Your task to perform on an android device: move an email to a new category in the gmail app Image 0: 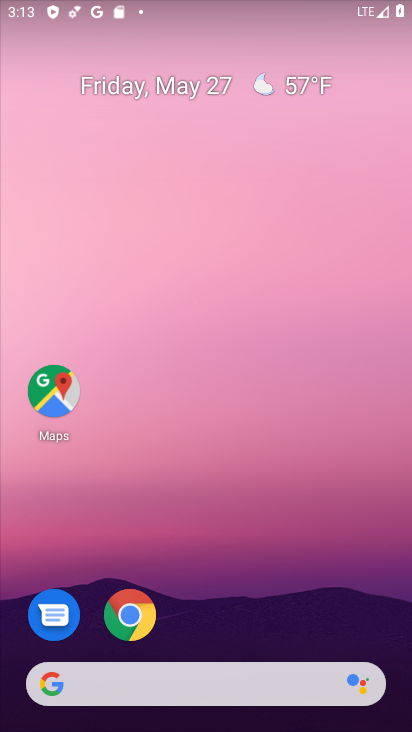
Step 0: drag from (215, 632) to (249, 2)
Your task to perform on an android device: move an email to a new category in the gmail app Image 1: 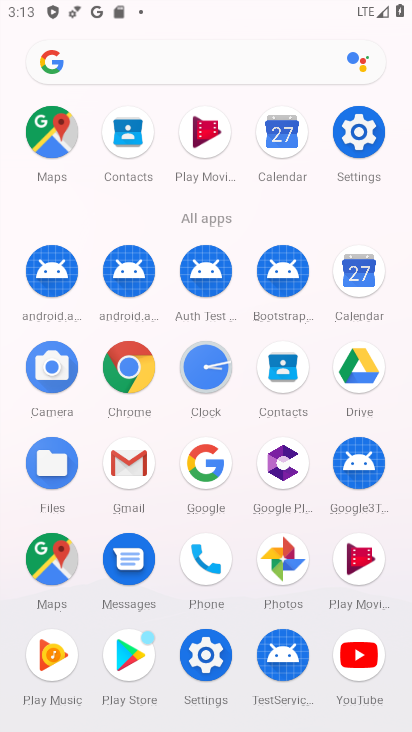
Step 1: click (135, 469)
Your task to perform on an android device: move an email to a new category in the gmail app Image 2: 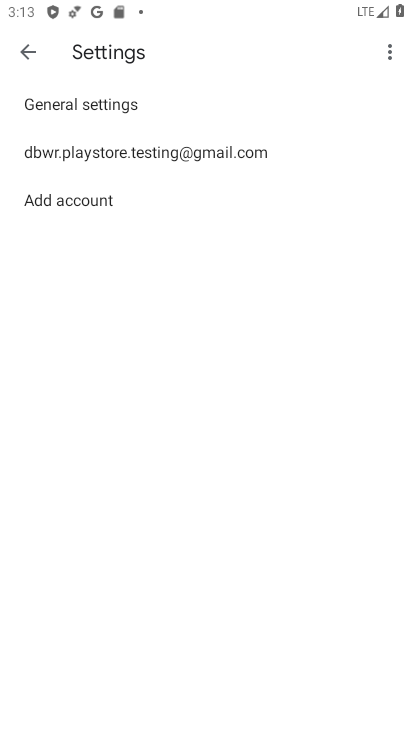
Step 2: click (179, 156)
Your task to perform on an android device: move an email to a new category in the gmail app Image 3: 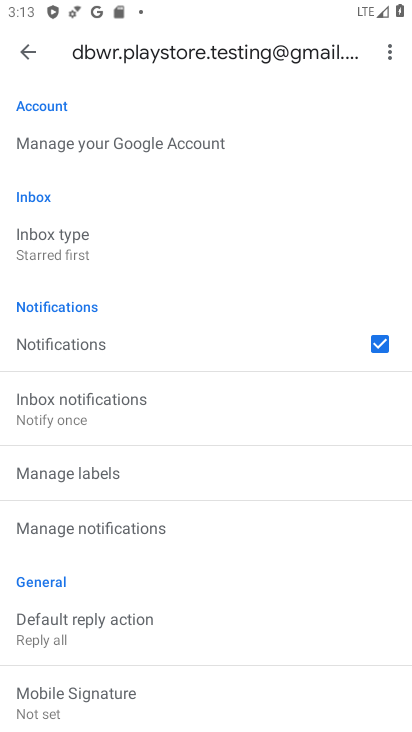
Step 3: click (14, 55)
Your task to perform on an android device: move an email to a new category in the gmail app Image 4: 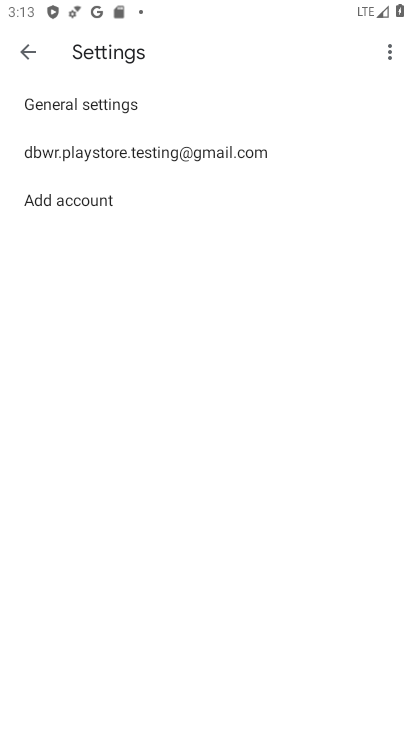
Step 4: click (26, 65)
Your task to perform on an android device: move an email to a new category in the gmail app Image 5: 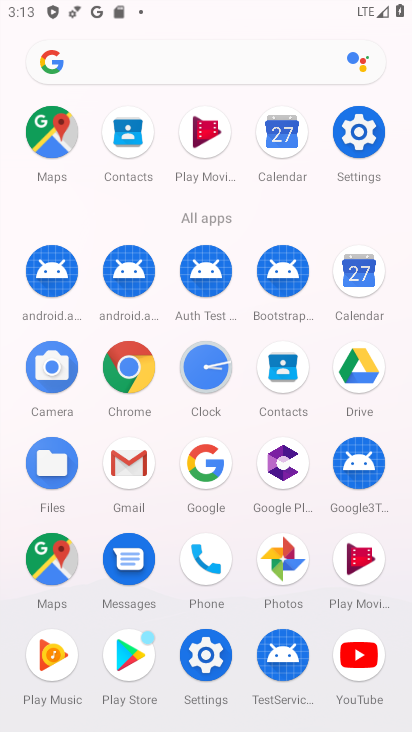
Step 5: click (134, 476)
Your task to perform on an android device: move an email to a new category in the gmail app Image 6: 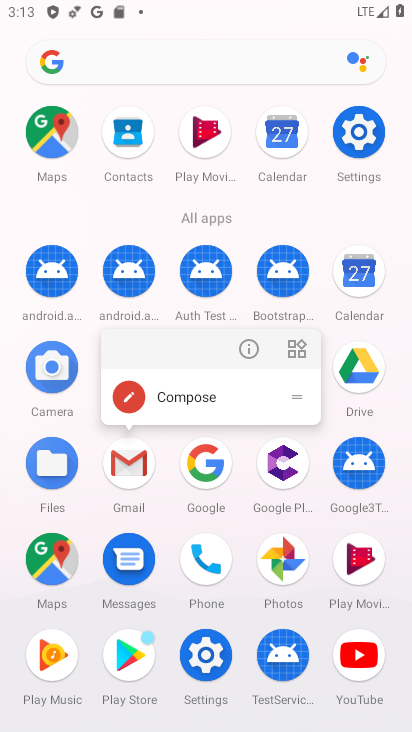
Step 6: click (107, 466)
Your task to perform on an android device: move an email to a new category in the gmail app Image 7: 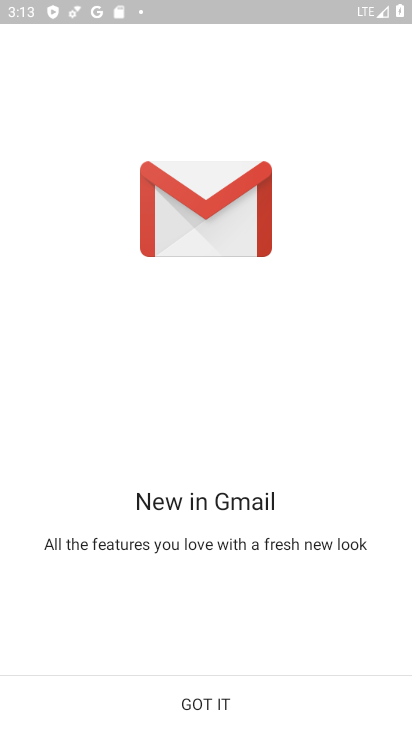
Step 7: click (118, 473)
Your task to perform on an android device: move an email to a new category in the gmail app Image 8: 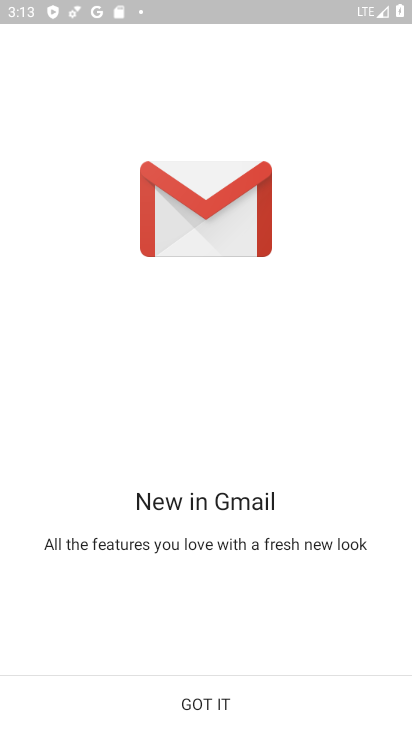
Step 8: click (213, 710)
Your task to perform on an android device: move an email to a new category in the gmail app Image 9: 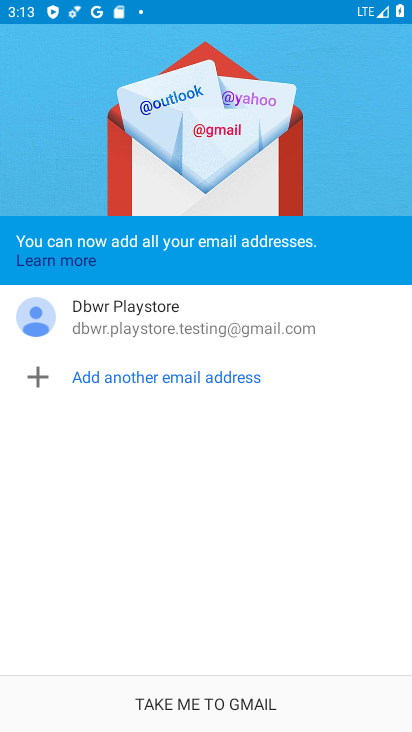
Step 9: click (213, 694)
Your task to perform on an android device: move an email to a new category in the gmail app Image 10: 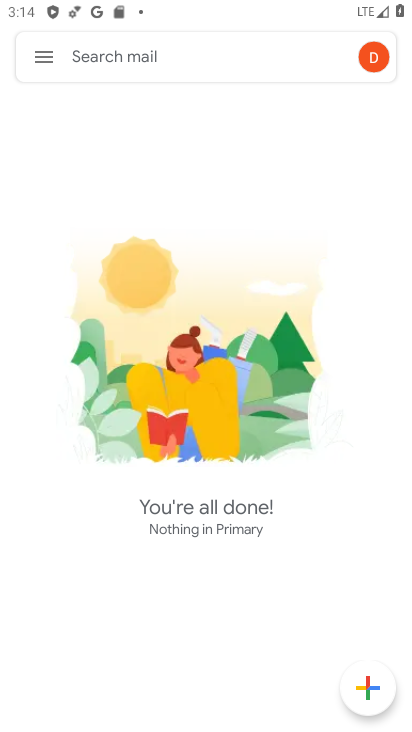
Step 10: click (49, 62)
Your task to perform on an android device: move an email to a new category in the gmail app Image 11: 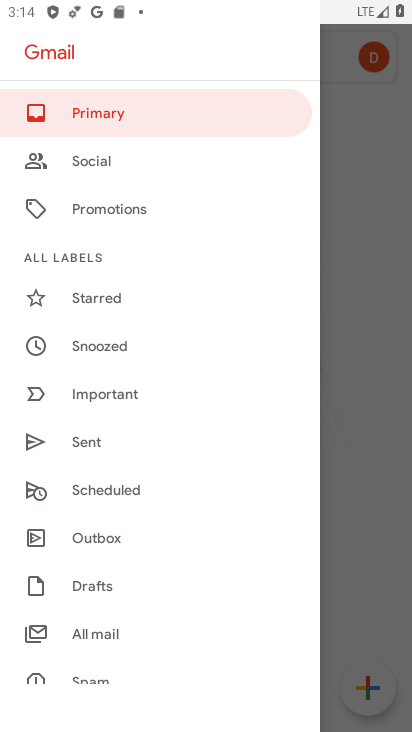
Step 11: click (96, 637)
Your task to perform on an android device: move an email to a new category in the gmail app Image 12: 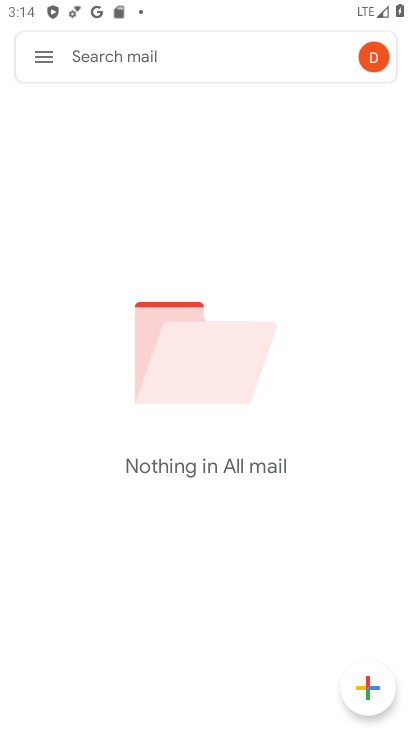
Step 12: task complete